Your task to perform on an android device: turn off location history Image 0: 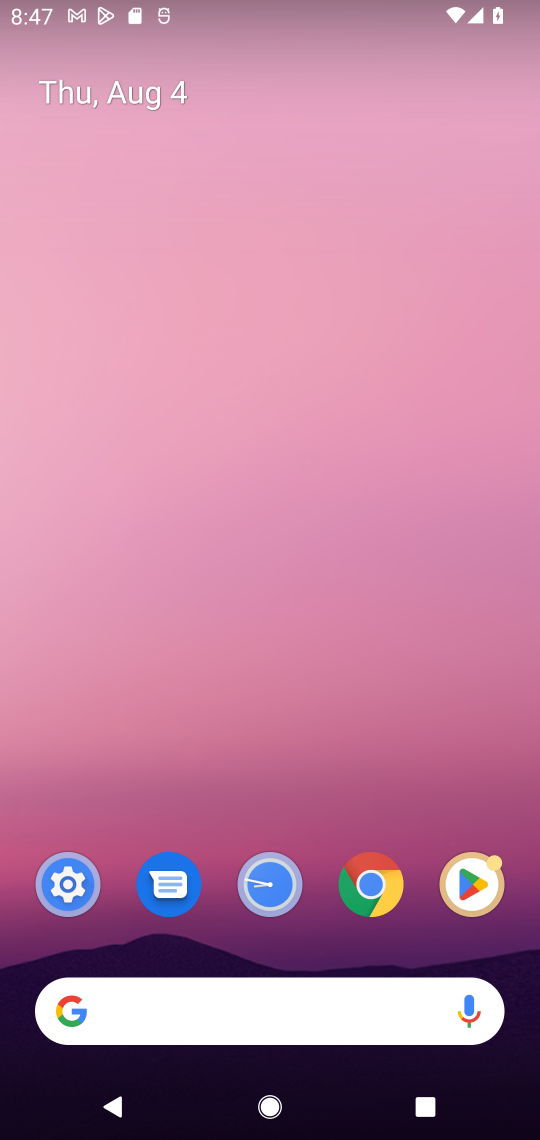
Step 0: click (77, 888)
Your task to perform on an android device: turn off location history Image 1: 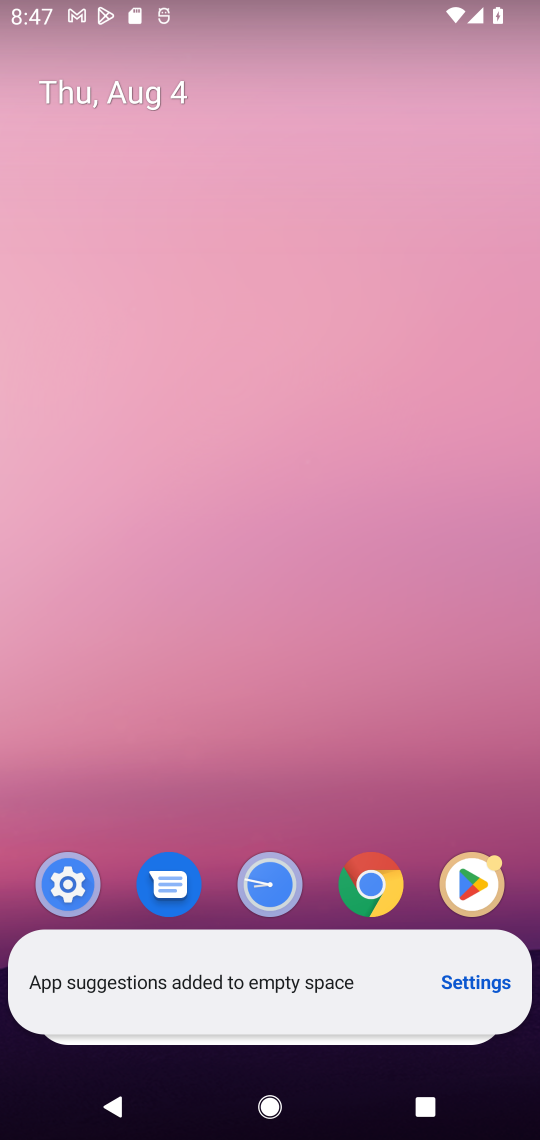
Step 1: drag from (385, 897) to (398, 222)
Your task to perform on an android device: turn off location history Image 2: 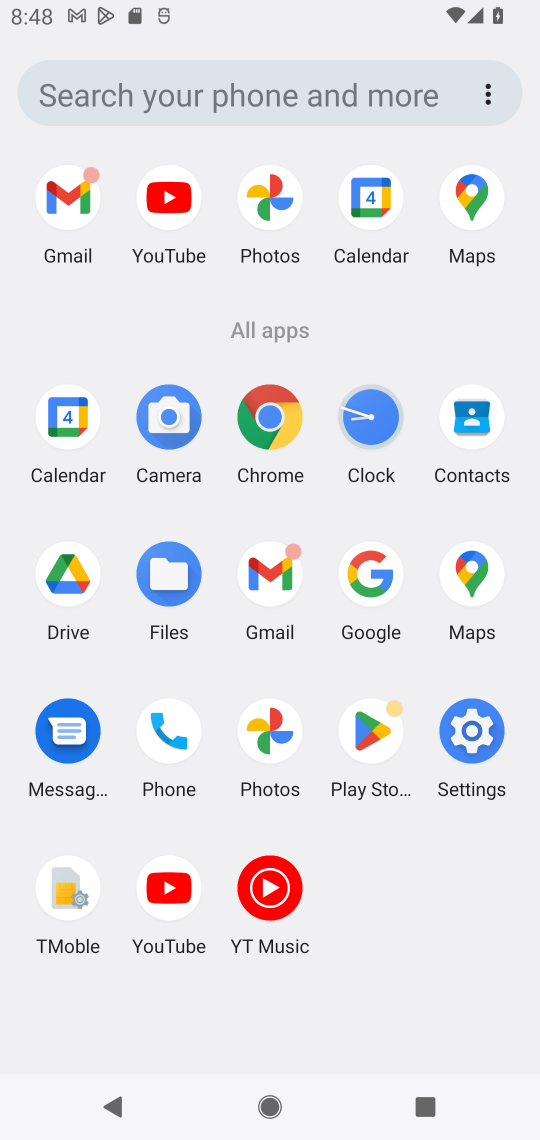
Step 2: click (494, 214)
Your task to perform on an android device: turn off location history Image 3: 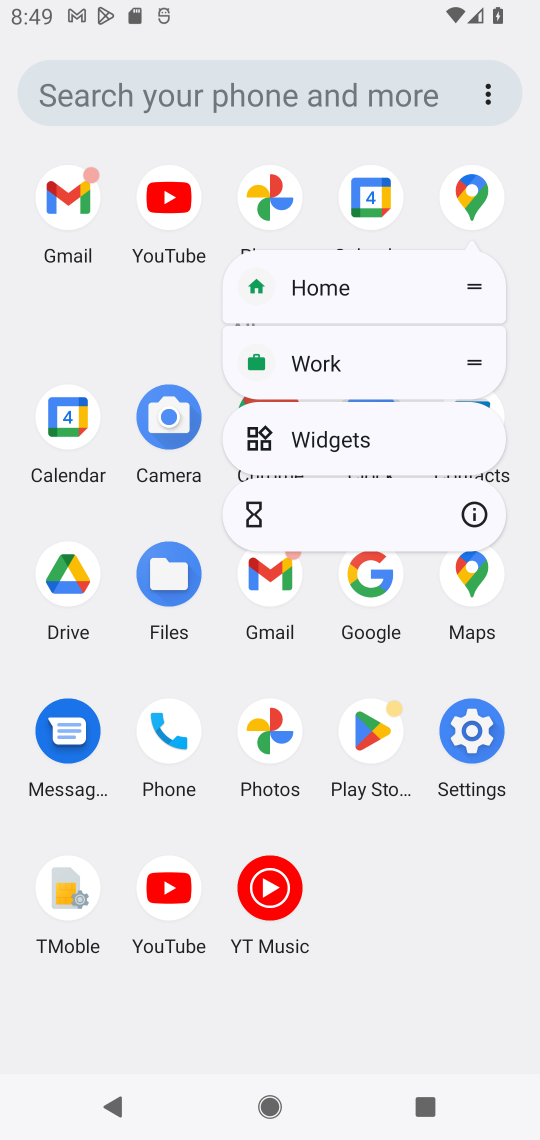
Step 3: click (469, 204)
Your task to perform on an android device: turn off location history Image 4: 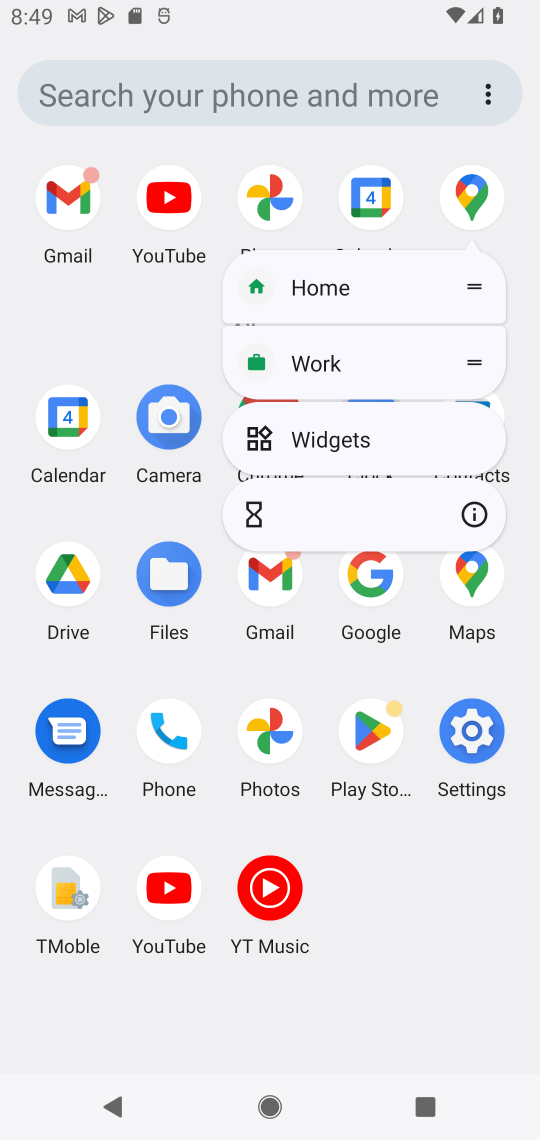
Step 4: click (469, 204)
Your task to perform on an android device: turn off location history Image 5: 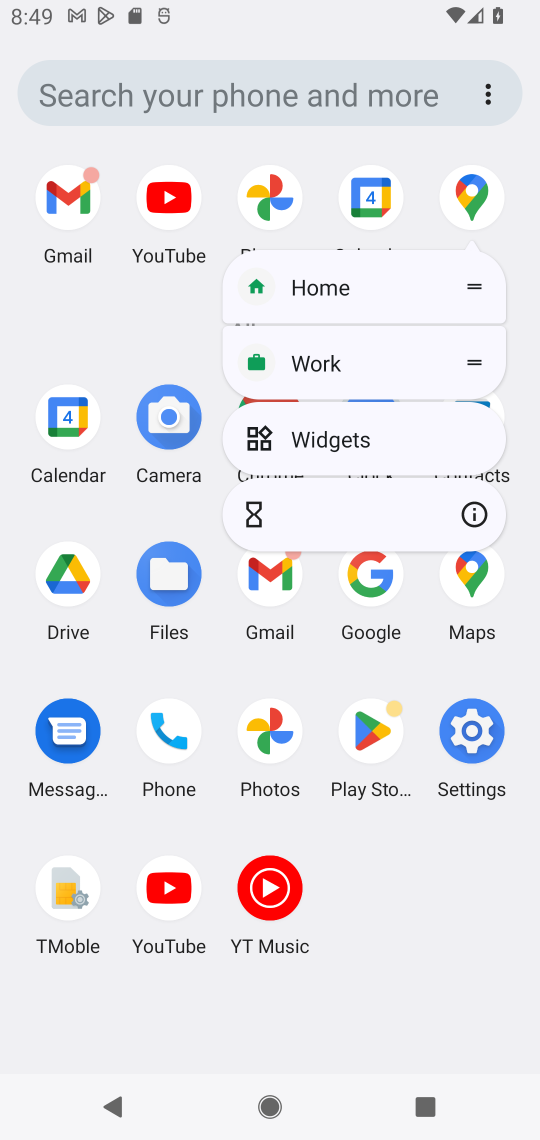
Step 5: click (469, 204)
Your task to perform on an android device: turn off location history Image 6: 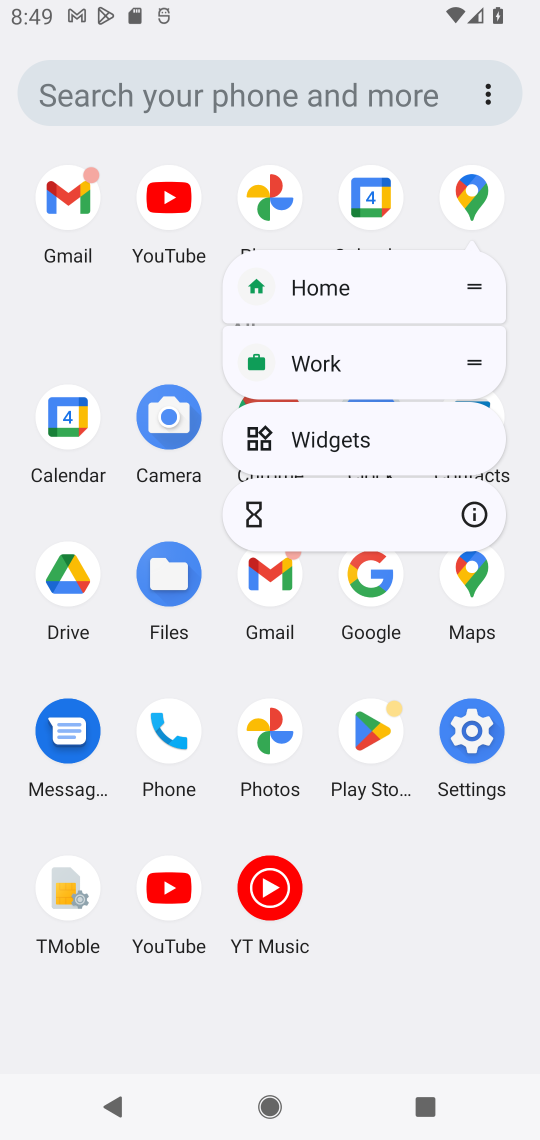
Step 6: click (469, 204)
Your task to perform on an android device: turn off location history Image 7: 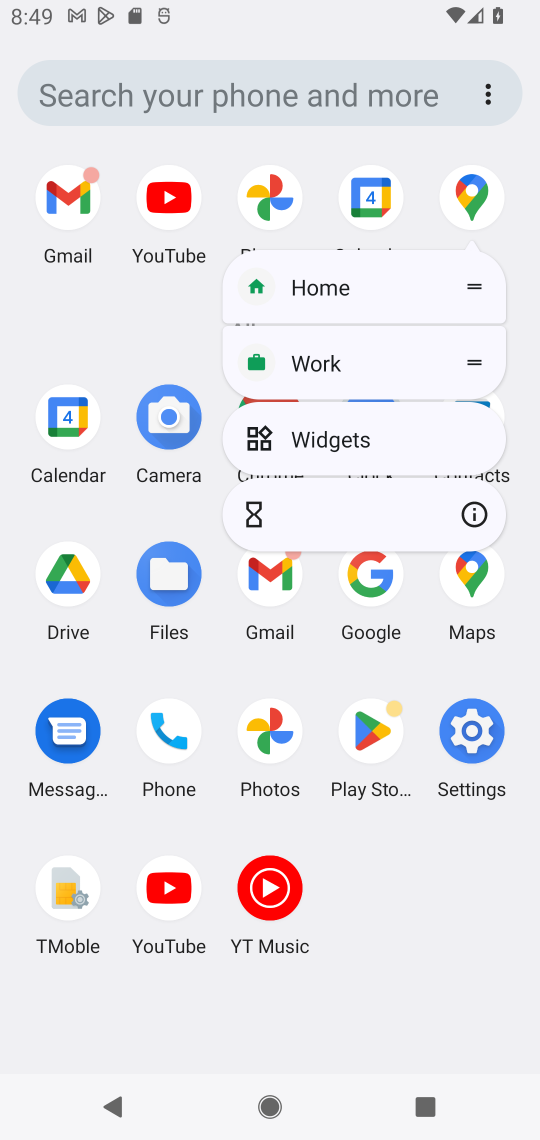
Step 7: click (469, 228)
Your task to perform on an android device: turn off location history Image 8: 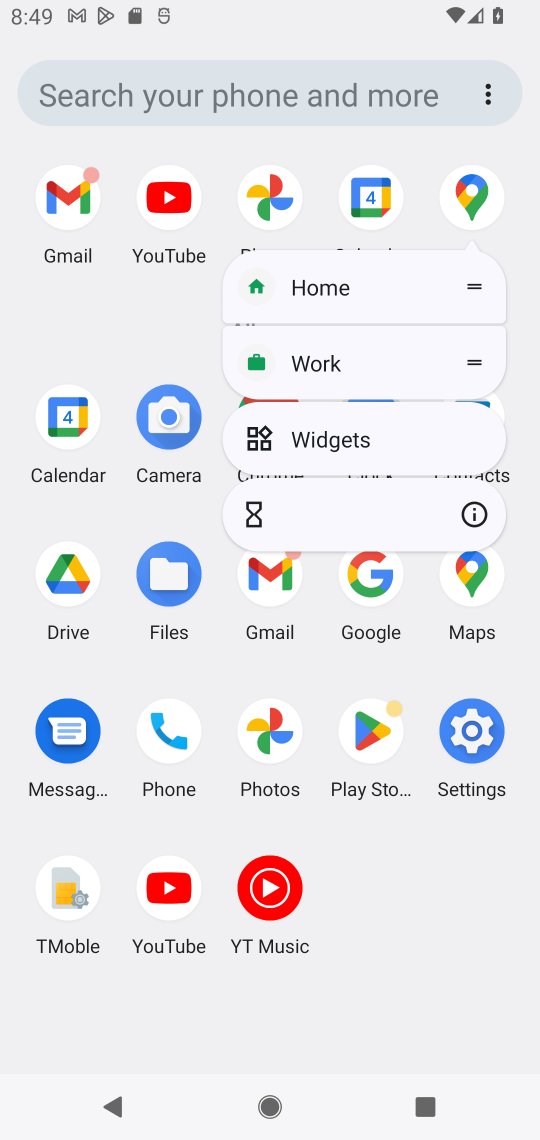
Step 8: click (455, 190)
Your task to perform on an android device: turn off location history Image 9: 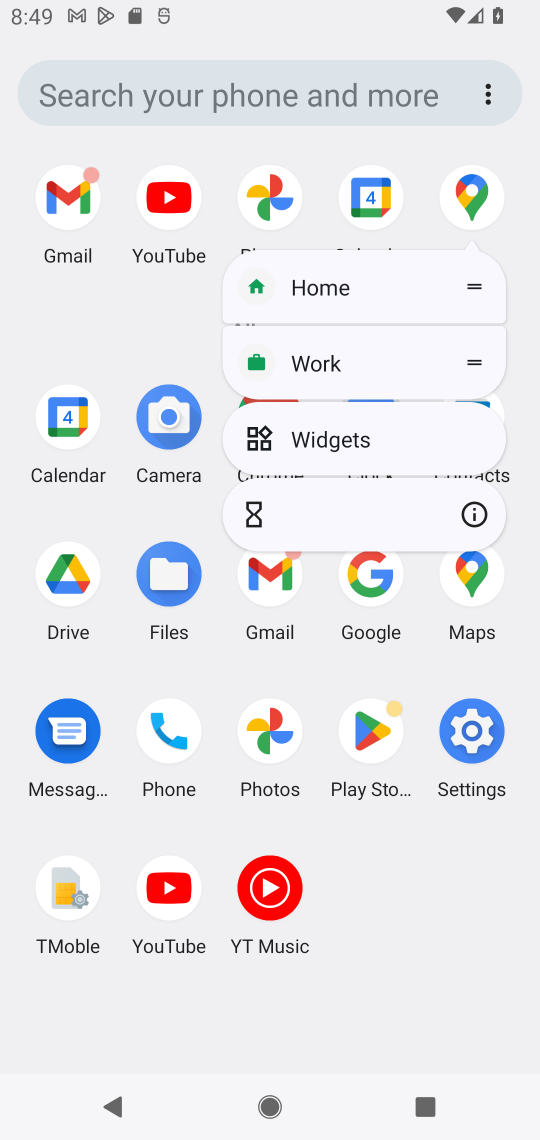
Step 9: click (455, 190)
Your task to perform on an android device: turn off location history Image 10: 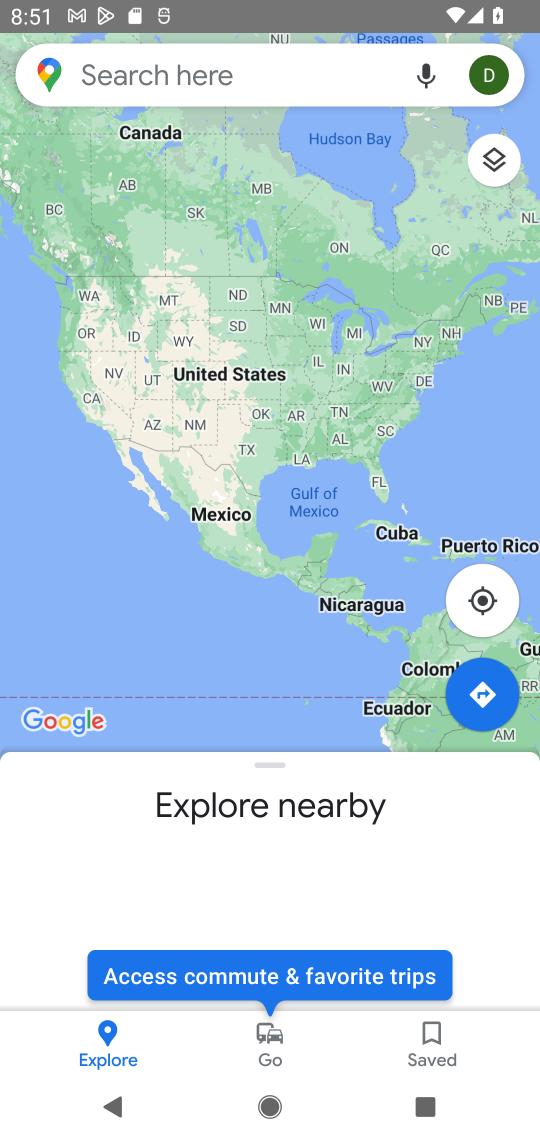
Step 10: click (42, 70)
Your task to perform on an android device: turn off location history Image 11: 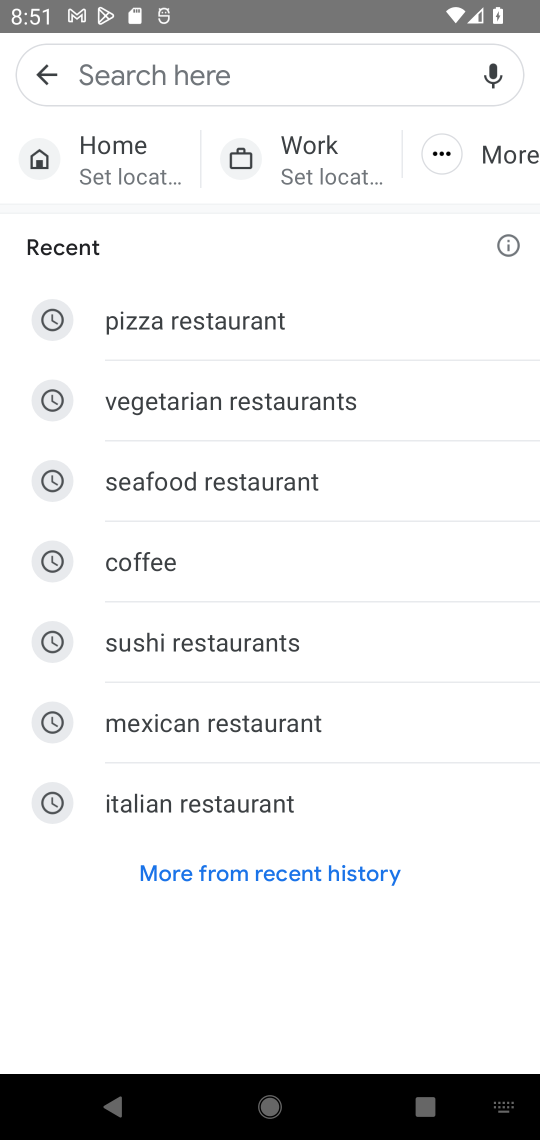
Step 11: click (47, 69)
Your task to perform on an android device: turn off location history Image 12: 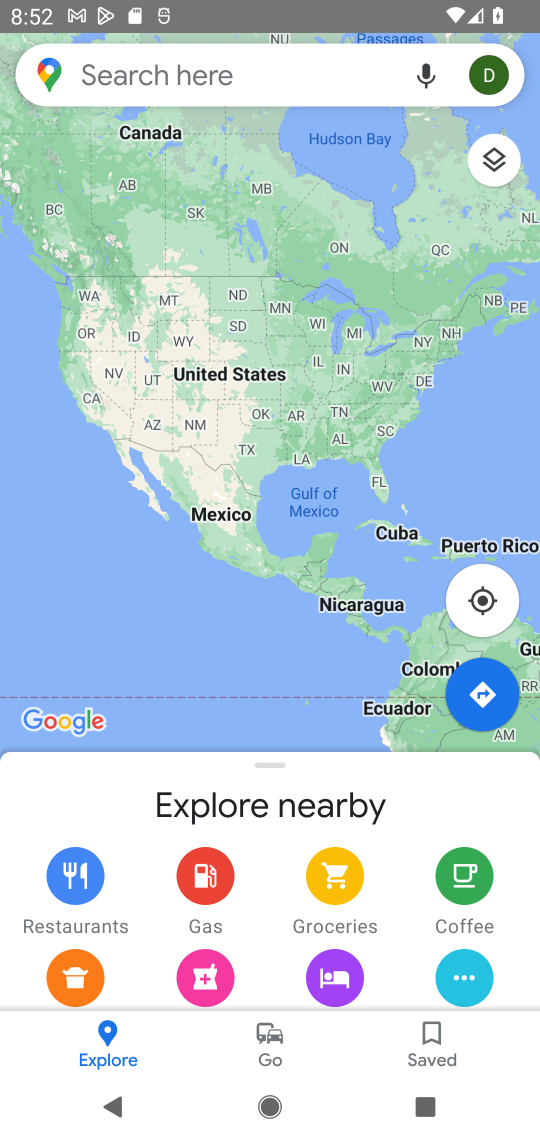
Step 12: click (47, 69)
Your task to perform on an android device: turn off location history Image 13: 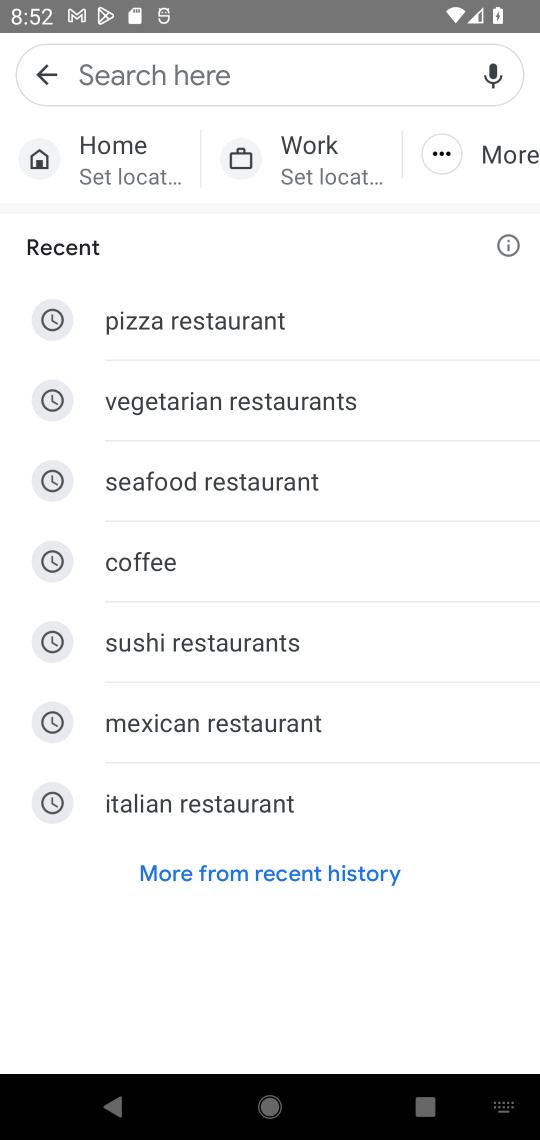
Step 13: click (31, 74)
Your task to perform on an android device: turn off location history Image 14: 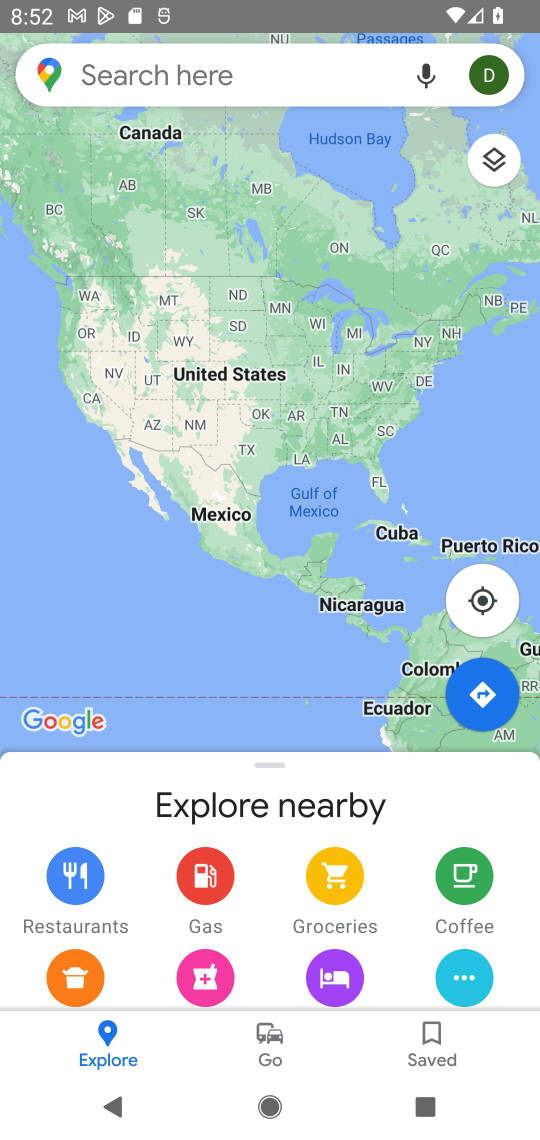
Step 14: click (48, 77)
Your task to perform on an android device: turn off location history Image 15: 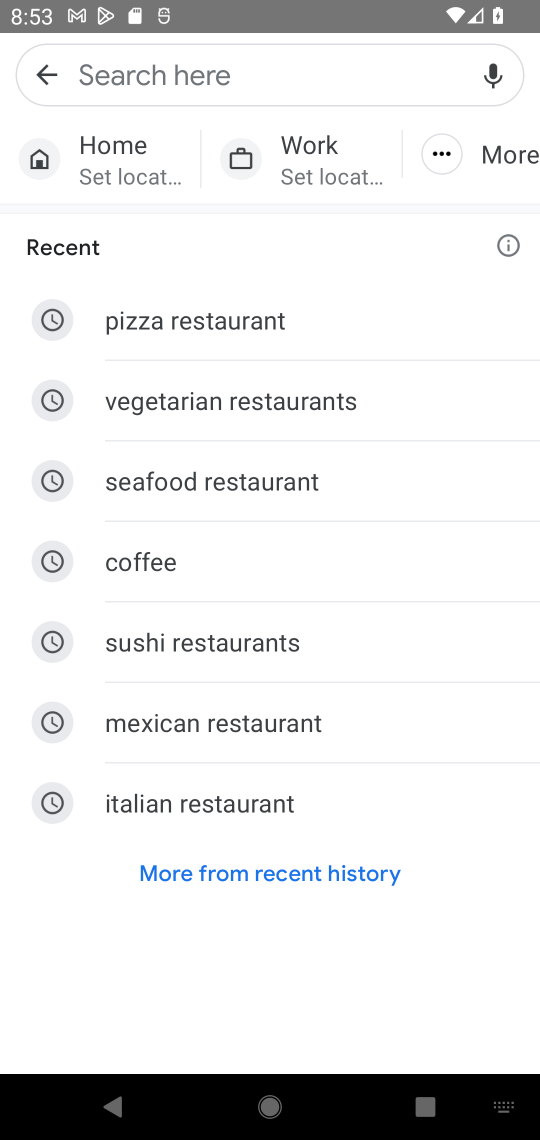
Step 15: click (55, 72)
Your task to perform on an android device: turn off location history Image 16: 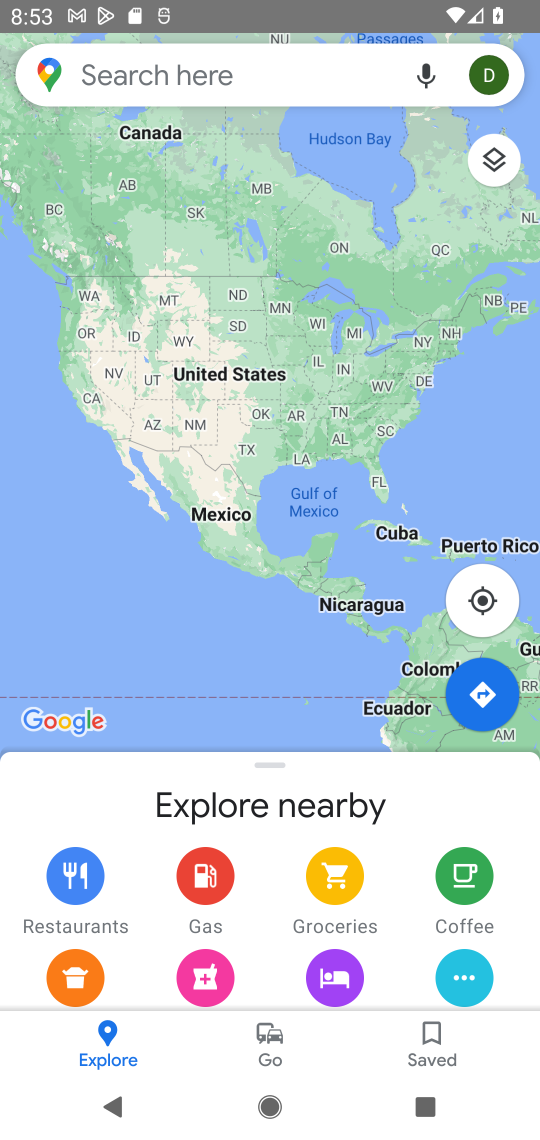
Step 16: click (53, 74)
Your task to perform on an android device: turn off location history Image 17: 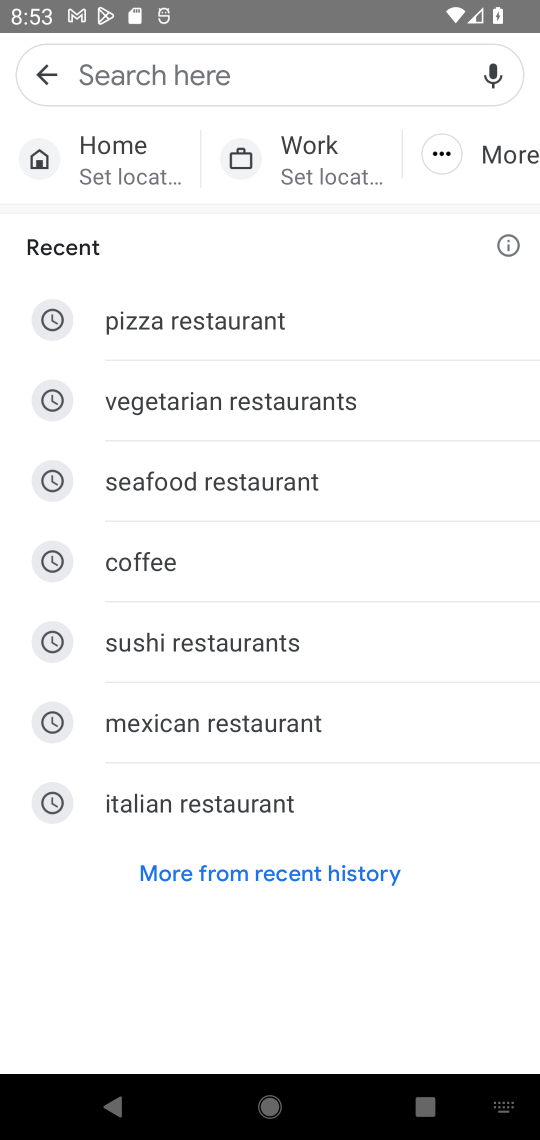
Step 17: click (53, 74)
Your task to perform on an android device: turn off location history Image 18: 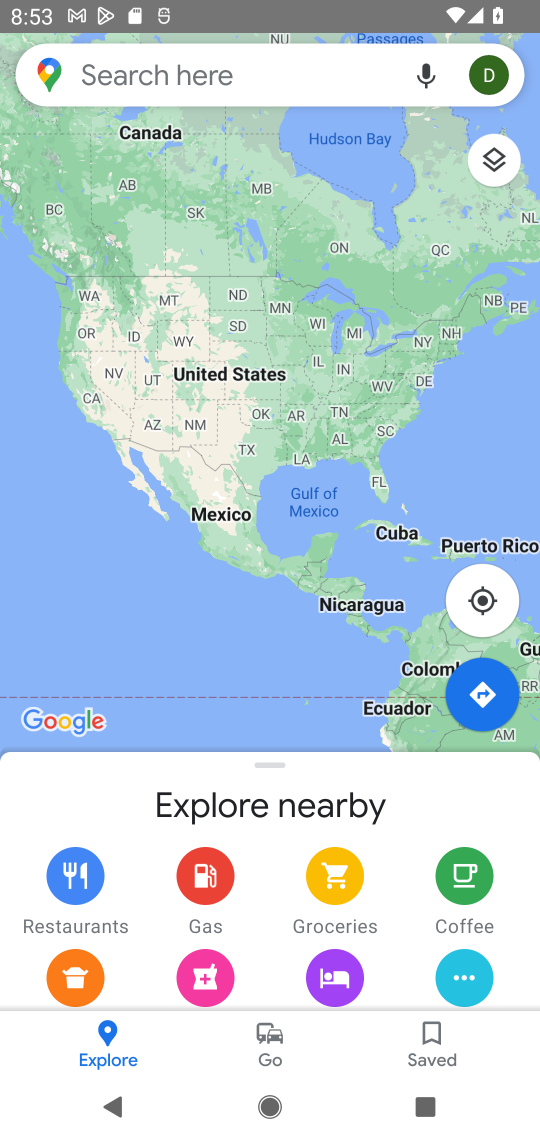
Step 18: task complete